Your task to perform on an android device: Open ESPN.com Image 0: 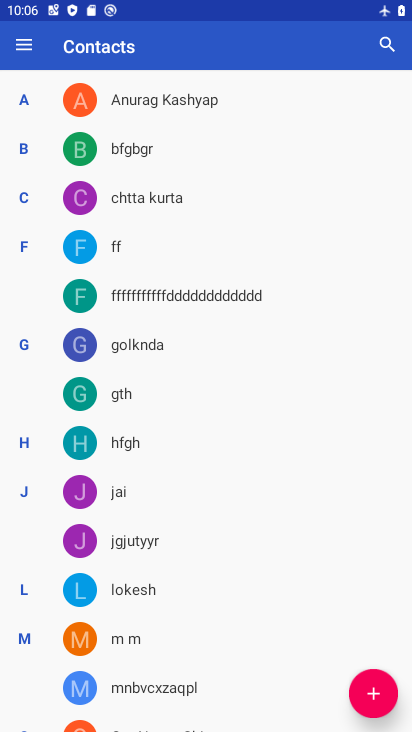
Step 0: press home button
Your task to perform on an android device: Open ESPN.com Image 1: 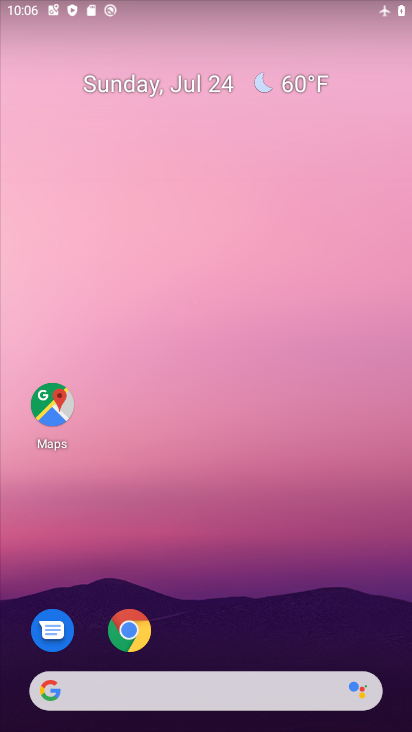
Step 1: click (129, 636)
Your task to perform on an android device: Open ESPN.com Image 2: 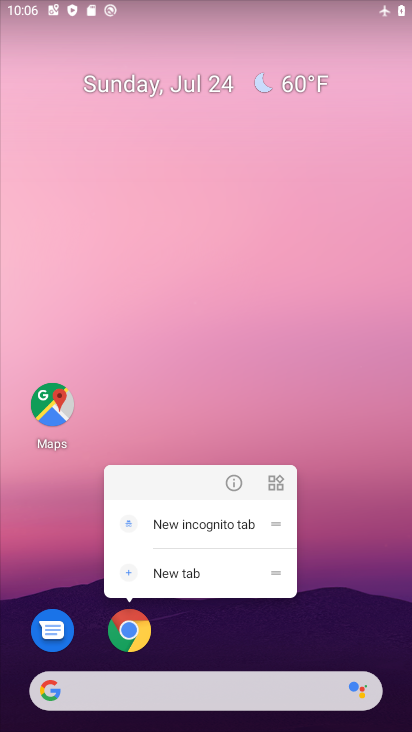
Step 2: click (128, 633)
Your task to perform on an android device: Open ESPN.com Image 3: 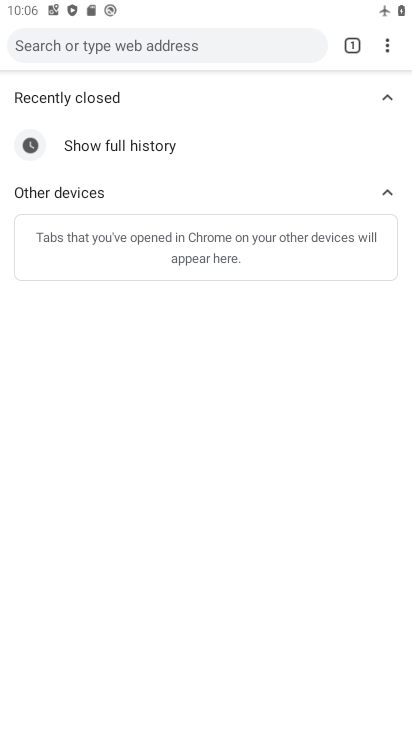
Step 3: click (184, 44)
Your task to perform on an android device: Open ESPN.com Image 4: 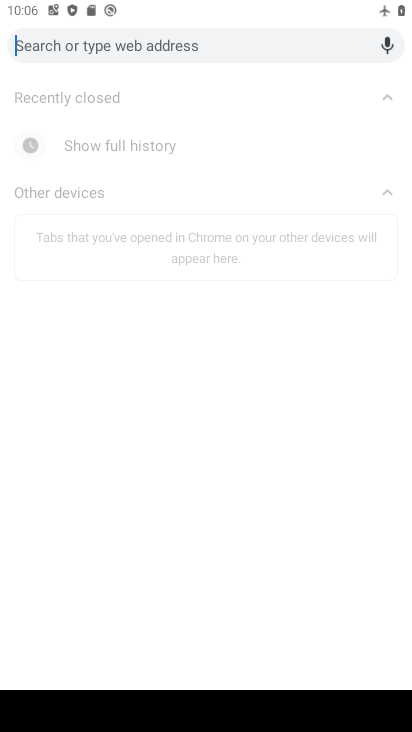
Step 4: type "ESPN.com"
Your task to perform on an android device: Open ESPN.com Image 5: 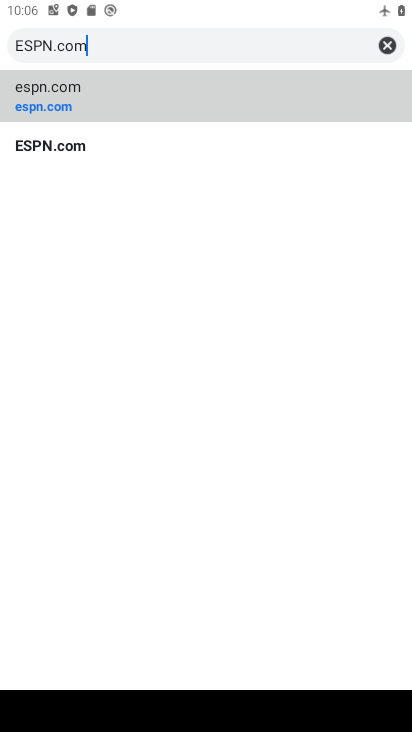
Step 5: click (63, 100)
Your task to perform on an android device: Open ESPN.com Image 6: 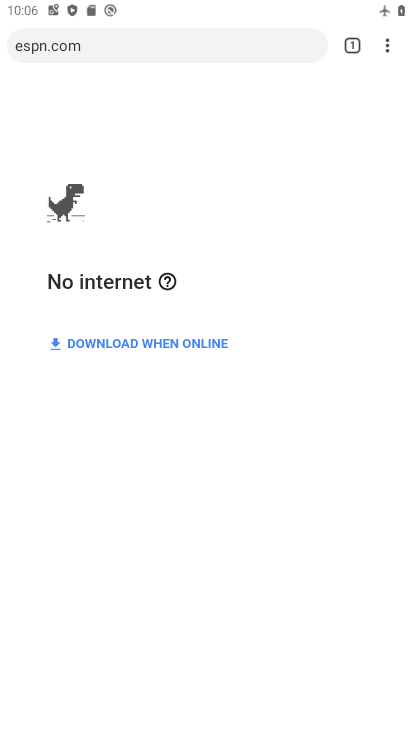
Step 6: task complete